Your task to perform on an android device: Open Yahoo.com Image 0: 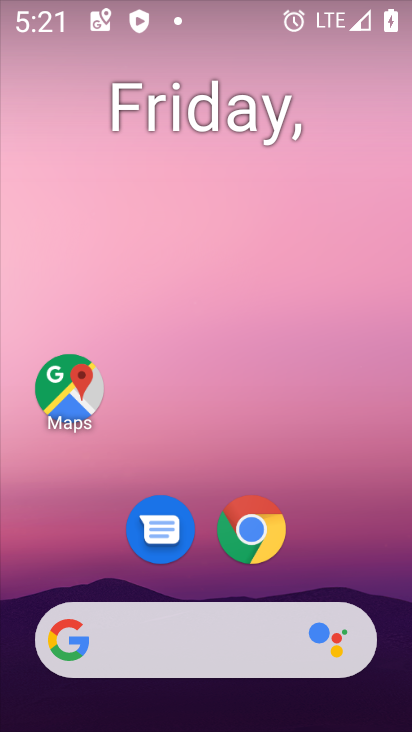
Step 0: click (266, 531)
Your task to perform on an android device: Open Yahoo.com Image 1: 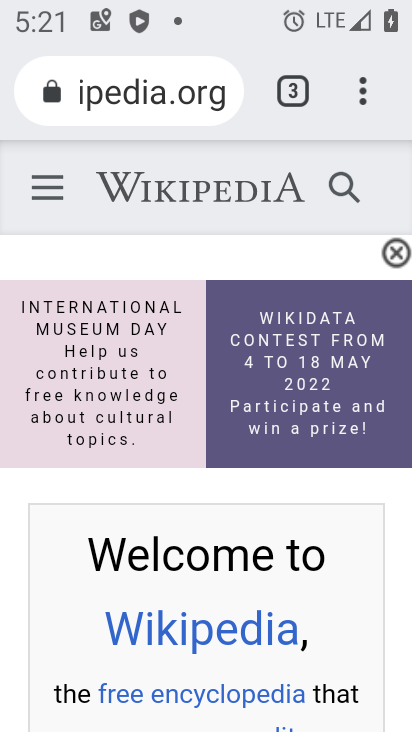
Step 1: click (293, 88)
Your task to perform on an android device: Open Yahoo.com Image 2: 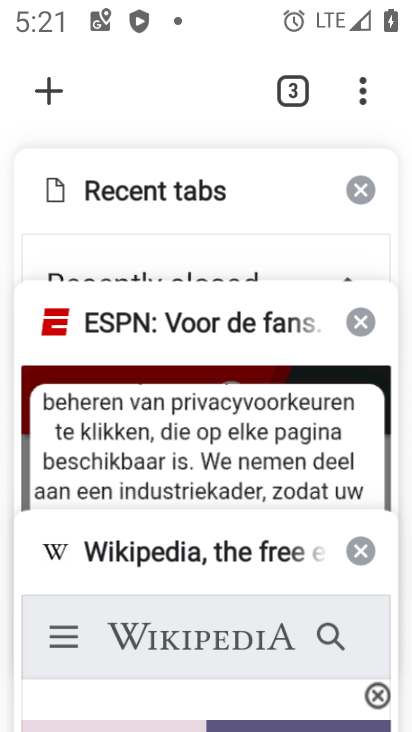
Step 2: click (45, 93)
Your task to perform on an android device: Open Yahoo.com Image 3: 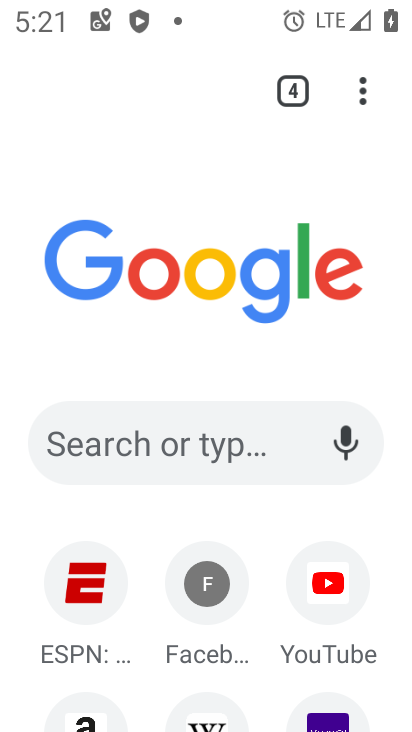
Step 3: click (332, 717)
Your task to perform on an android device: Open Yahoo.com Image 4: 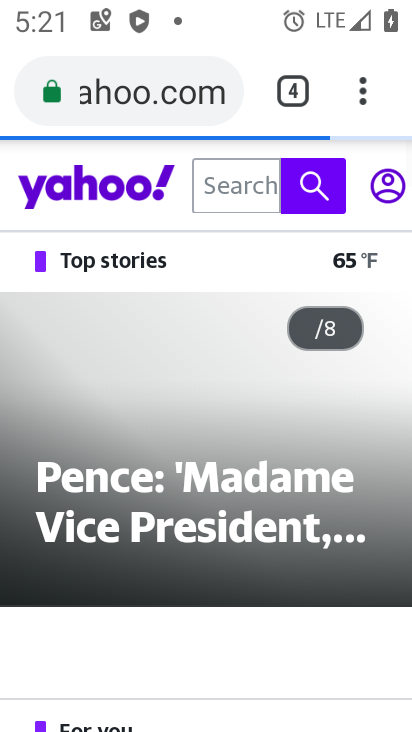
Step 4: task complete